Your task to perform on an android device: When is my next appointment? Image 0: 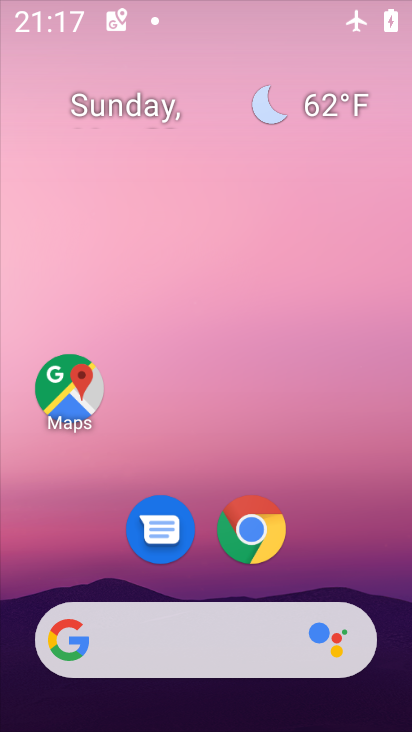
Step 0: press back button
Your task to perform on an android device: When is my next appointment? Image 1: 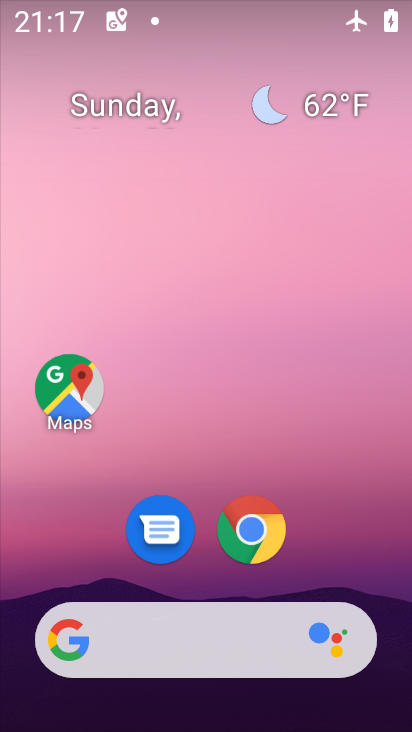
Step 1: press back button
Your task to perform on an android device: When is my next appointment? Image 2: 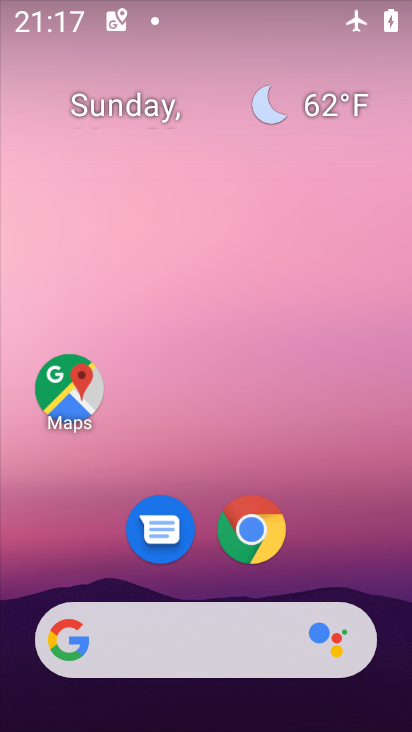
Step 2: drag from (228, 696) to (75, 45)
Your task to perform on an android device: When is my next appointment? Image 3: 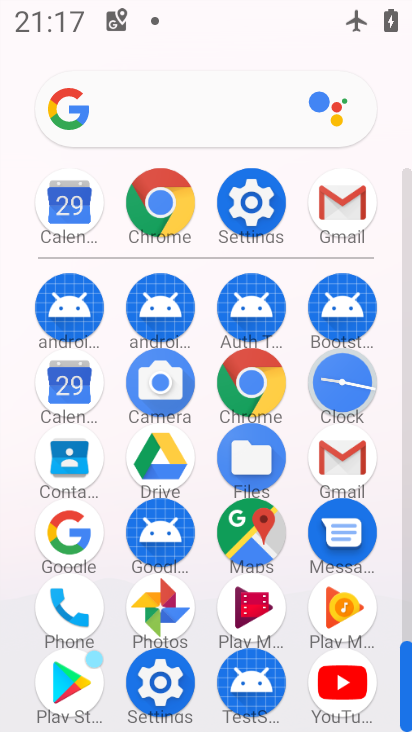
Step 3: click (71, 392)
Your task to perform on an android device: When is my next appointment? Image 4: 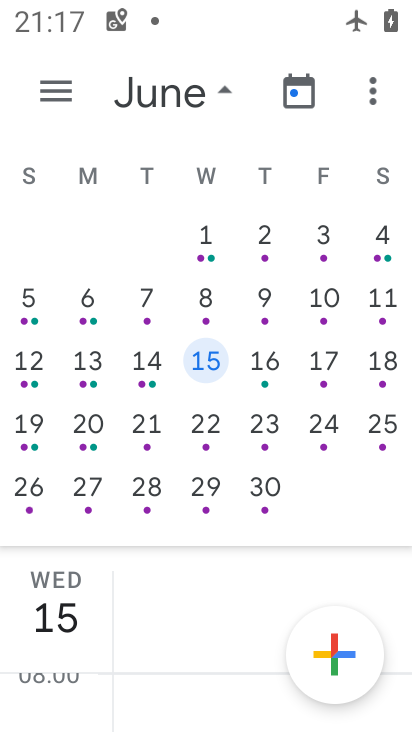
Step 4: drag from (55, 336) to (410, 372)
Your task to perform on an android device: When is my next appointment? Image 5: 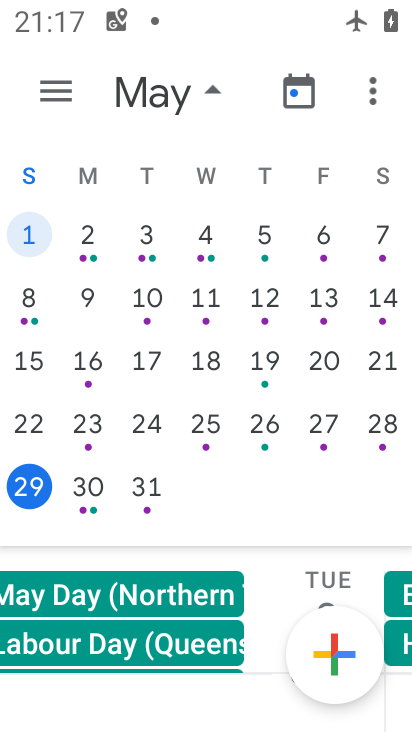
Step 5: click (350, 404)
Your task to perform on an android device: When is my next appointment? Image 6: 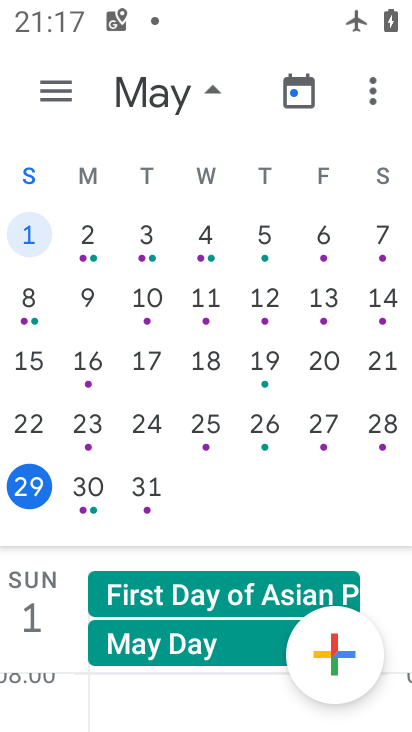
Step 6: drag from (120, 351) to (369, 411)
Your task to perform on an android device: When is my next appointment? Image 7: 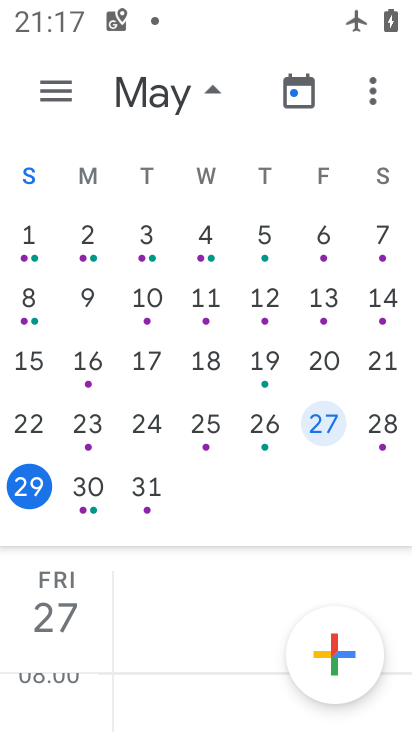
Step 7: drag from (115, 486) to (106, 176)
Your task to perform on an android device: When is my next appointment? Image 8: 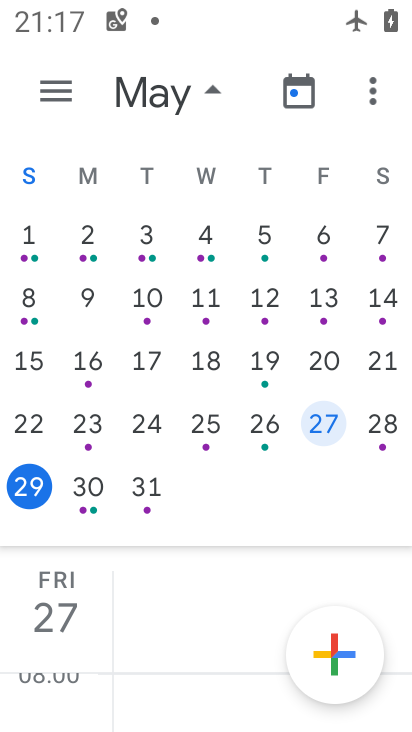
Step 8: click (125, 102)
Your task to perform on an android device: When is my next appointment? Image 9: 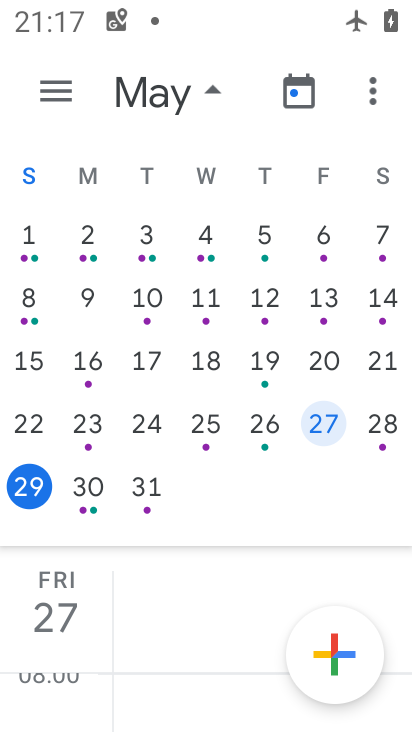
Step 9: drag from (139, 399) to (140, 14)
Your task to perform on an android device: When is my next appointment? Image 10: 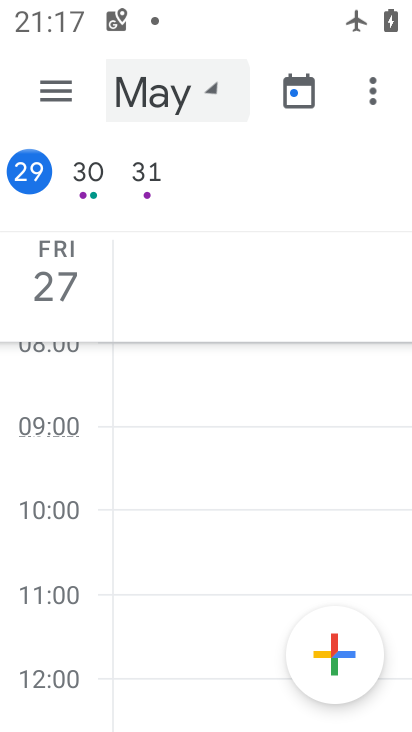
Step 10: drag from (213, 359) to (185, 20)
Your task to perform on an android device: When is my next appointment? Image 11: 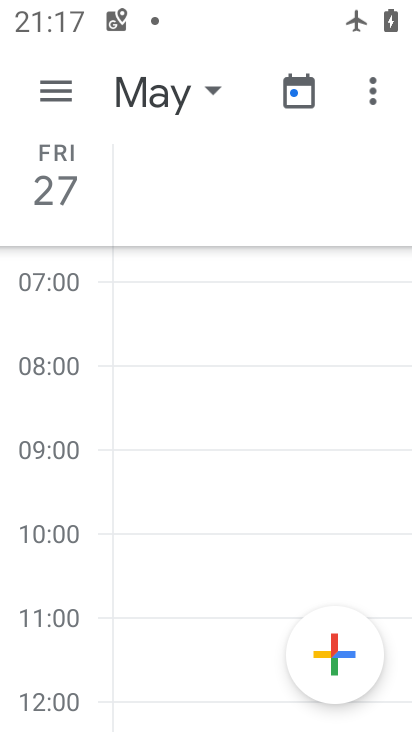
Step 11: click (119, 3)
Your task to perform on an android device: When is my next appointment? Image 12: 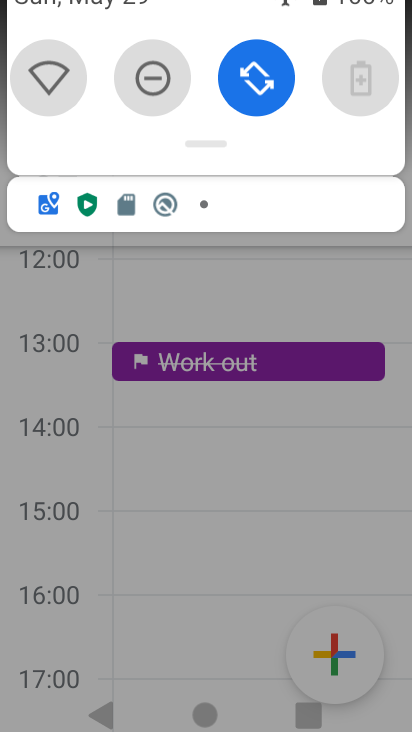
Step 12: drag from (134, 530) to (135, 68)
Your task to perform on an android device: When is my next appointment? Image 13: 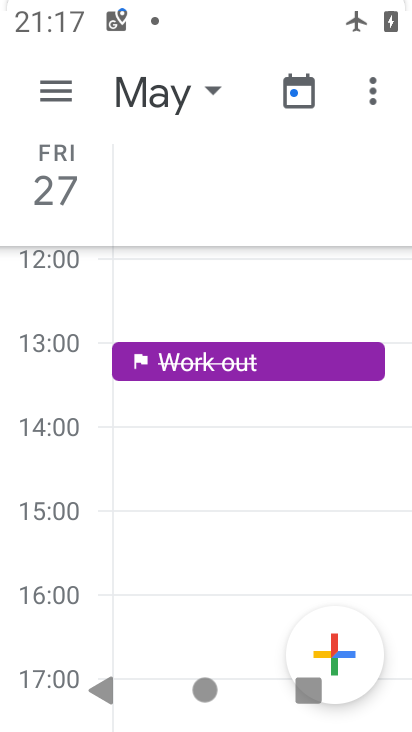
Step 13: click (139, 0)
Your task to perform on an android device: When is my next appointment? Image 14: 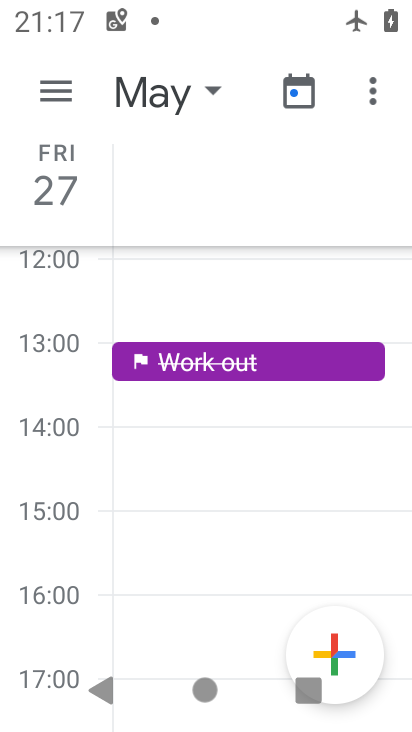
Step 14: click (134, 29)
Your task to perform on an android device: When is my next appointment? Image 15: 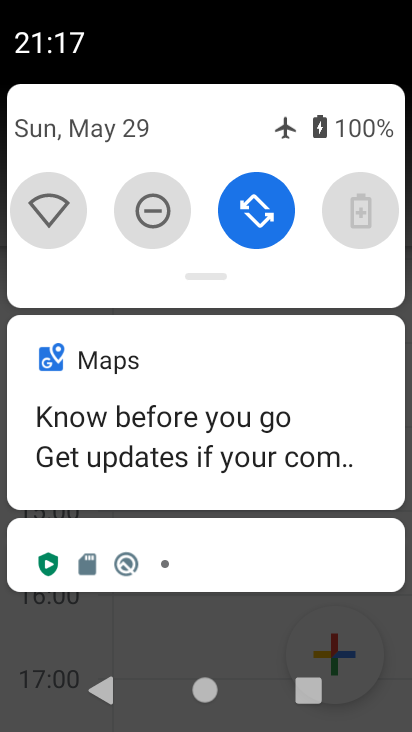
Step 15: drag from (157, 464) to (128, 146)
Your task to perform on an android device: When is my next appointment? Image 16: 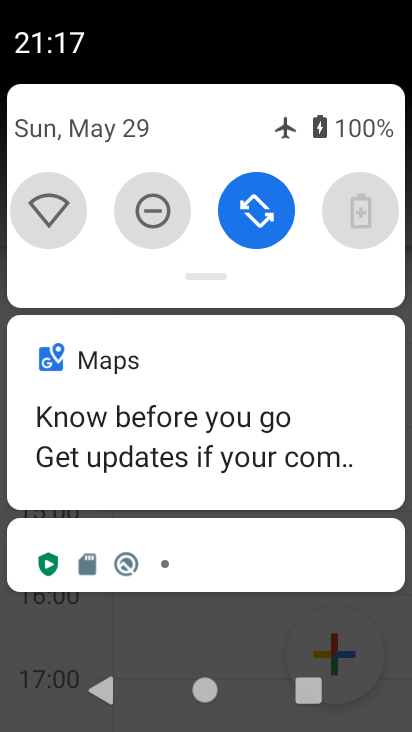
Step 16: drag from (205, 519) to (184, 114)
Your task to perform on an android device: When is my next appointment? Image 17: 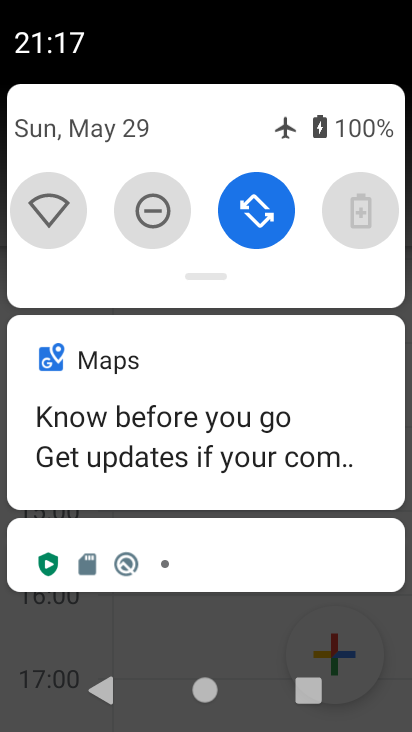
Step 17: click (150, 77)
Your task to perform on an android device: When is my next appointment? Image 18: 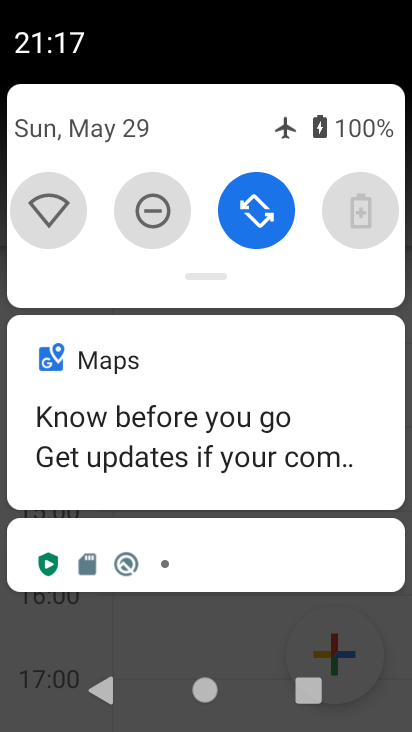
Step 18: task complete